Your task to perform on an android device: toggle sleep mode Image 0: 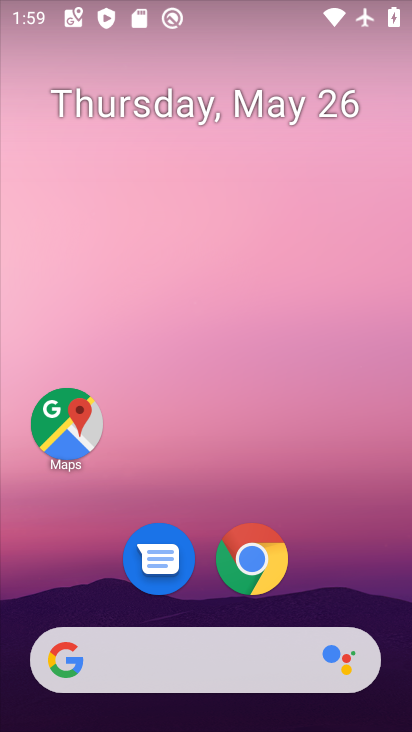
Step 0: drag from (225, 162) to (227, 117)
Your task to perform on an android device: toggle sleep mode Image 1: 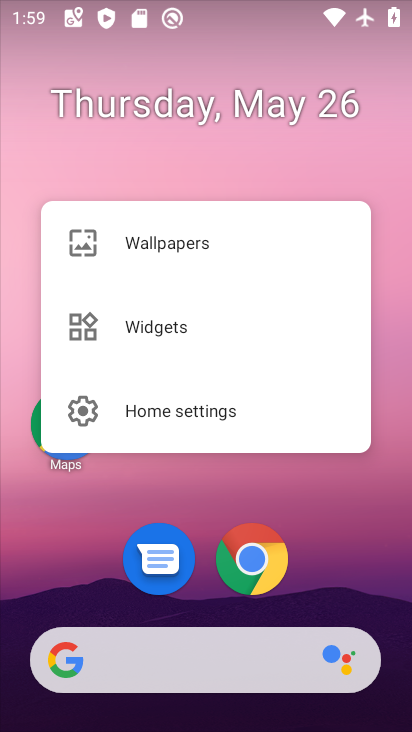
Step 1: drag from (210, 662) to (267, 123)
Your task to perform on an android device: toggle sleep mode Image 2: 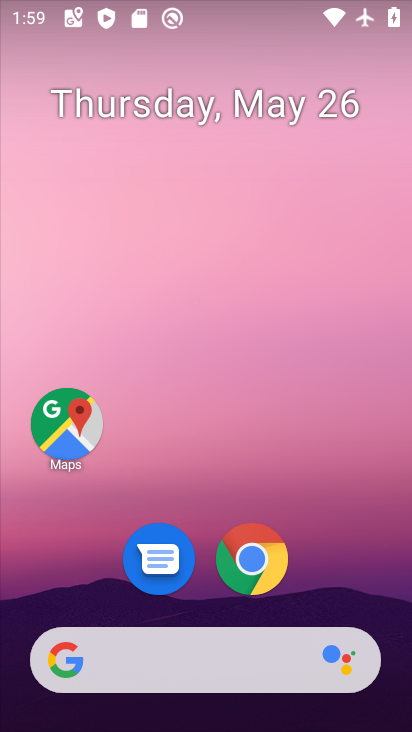
Step 2: drag from (178, 649) to (278, 85)
Your task to perform on an android device: toggle sleep mode Image 3: 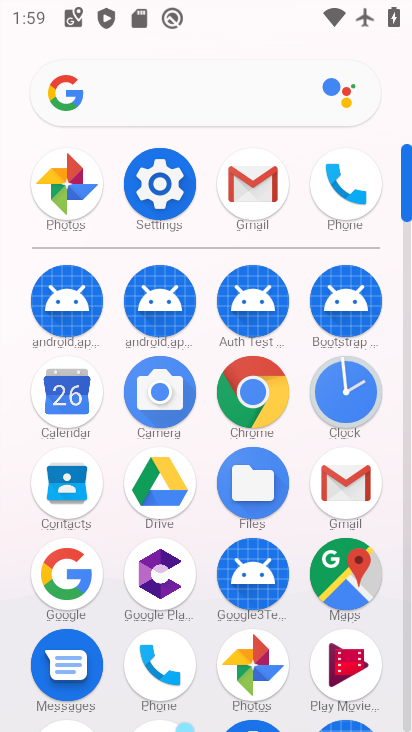
Step 3: click (162, 196)
Your task to perform on an android device: toggle sleep mode Image 4: 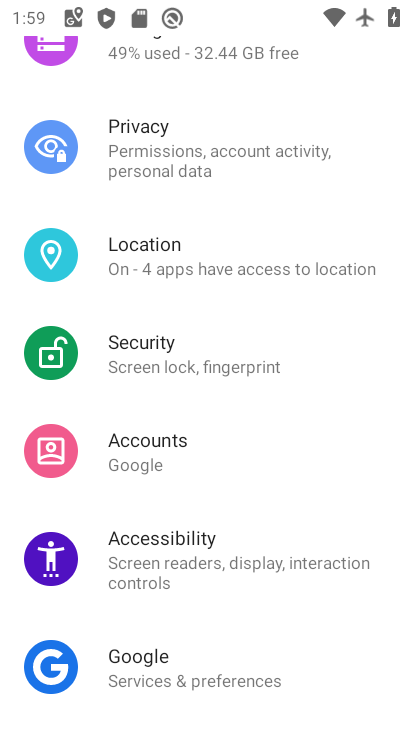
Step 4: drag from (309, 302) to (369, 590)
Your task to perform on an android device: toggle sleep mode Image 5: 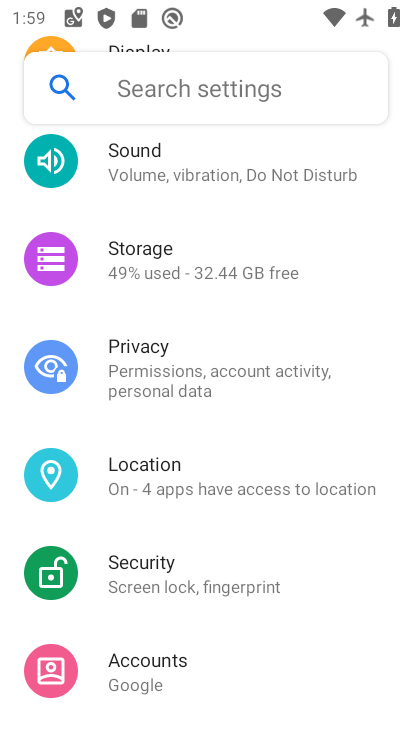
Step 5: drag from (307, 227) to (266, 623)
Your task to perform on an android device: toggle sleep mode Image 6: 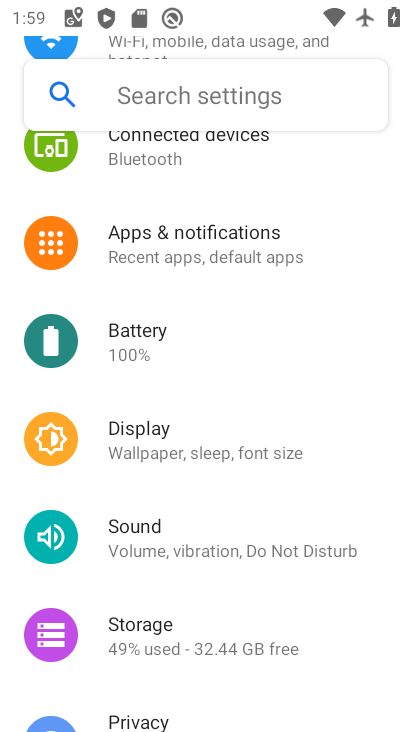
Step 6: drag from (275, 305) to (264, 590)
Your task to perform on an android device: toggle sleep mode Image 7: 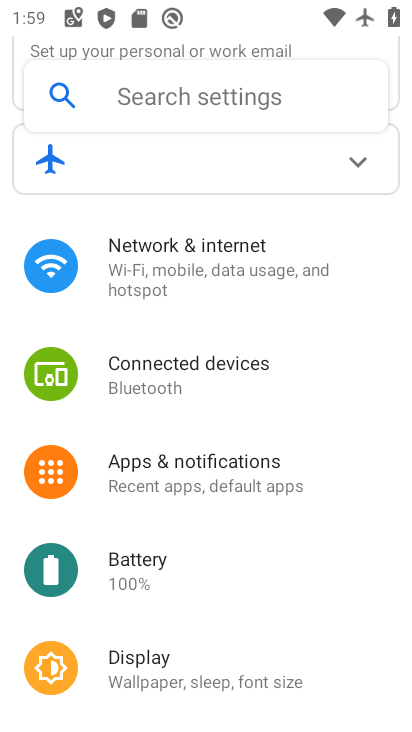
Step 7: drag from (235, 570) to (306, 284)
Your task to perform on an android device: toggle sleep mode Image 8: 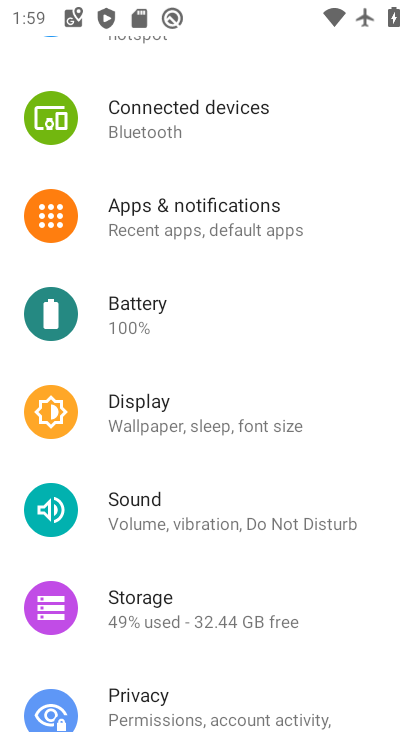
Step 8: click (199, 435)
Your task to perform on an android device: toggle sleep mode Image 9: 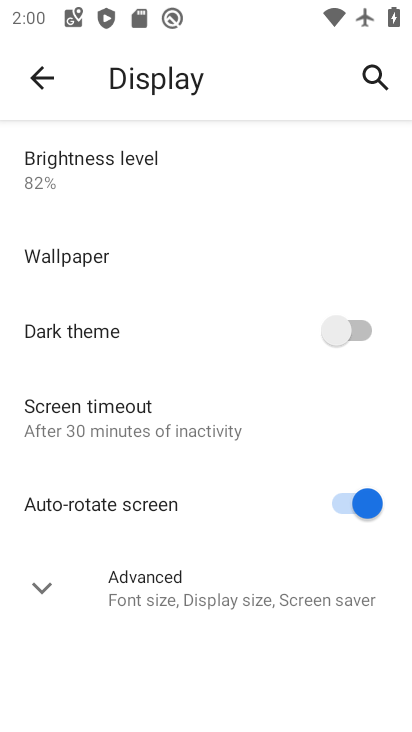
Step 9: task complete